Your task to perform on an android device: manage bookmarks in the chrome app Image 0: 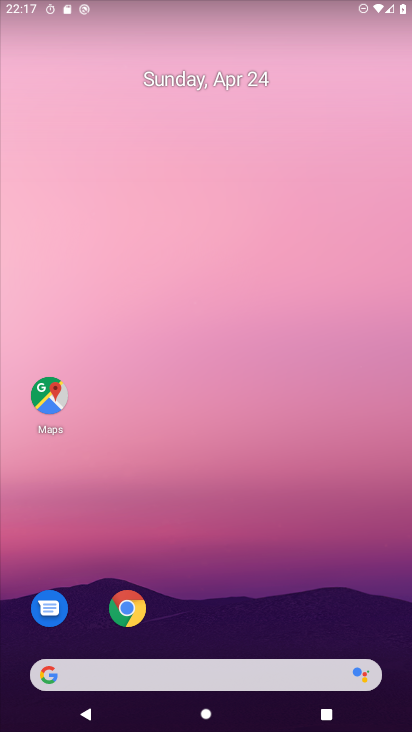
Step 0: click (122, 593)
Your task to perform on an android device: manage bookmarks in the chrome app Image 1: 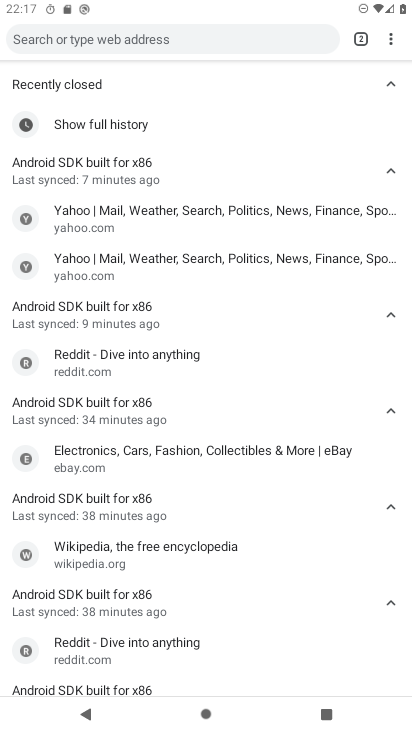
Step 1: click (391, 36)
Your task to perform on an android device: manage bookmarks in the chrome app Image 2: 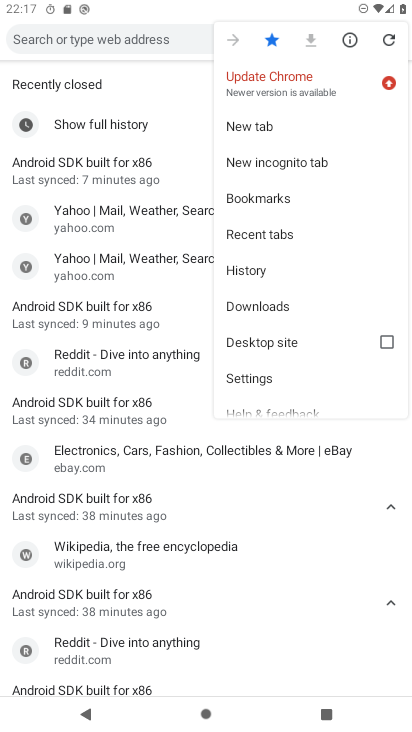
Step 2: click (286, 195)
Your task to perform on an android device: manage bookmarks in the chrome app Image 3: 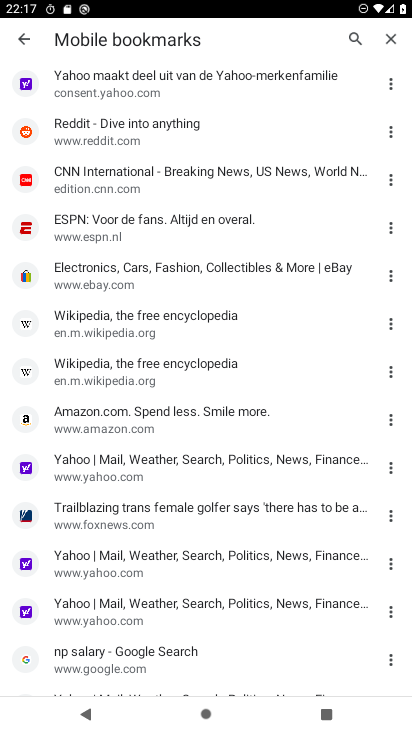
Step 3: click (392, 224)
Your task to perform on an android device: manage bookmarks in the chrome app Image 4: 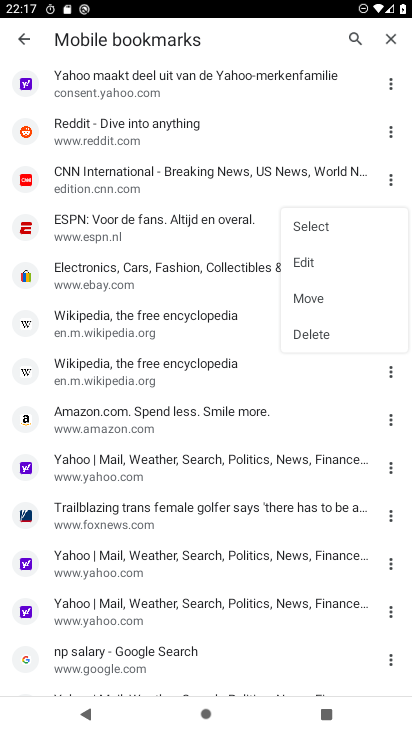
Step 4: click (327, 255)
Your task to perform on an android device: manage bookmarks in the chrome app Image 5: 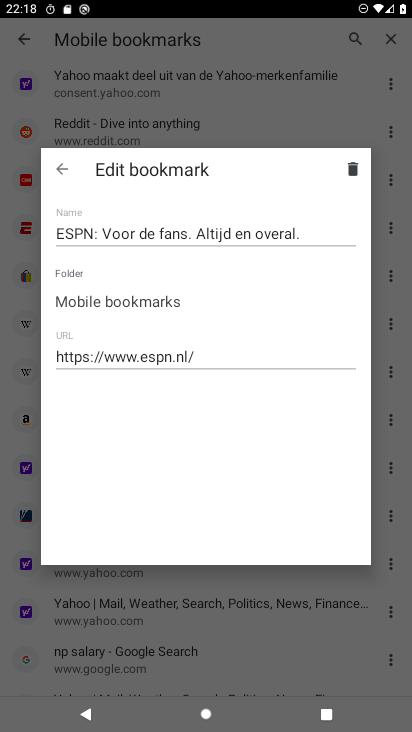
Step 5: click (27, 38)
Your task to perform on an android device: manage bookmarks in the chrome app Image 6: 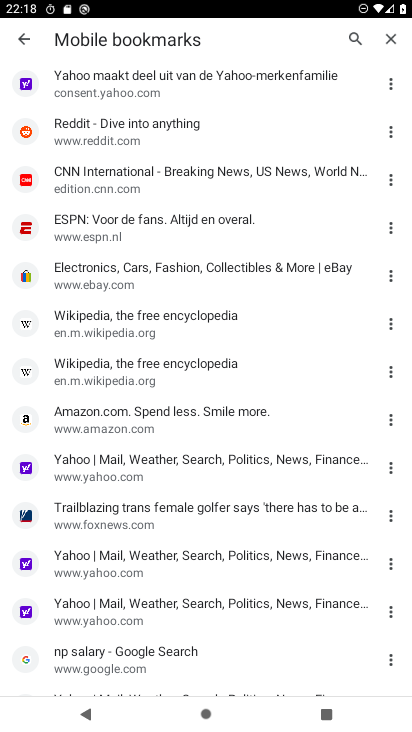
Step 6: task complete